Your task to perform on an android device: toggle notification dots Image 0: 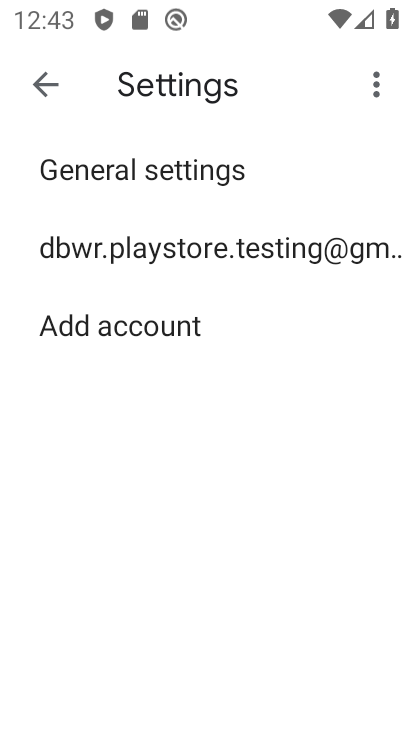
Step 0: press home button
Your task to perform on an android device: toggle notification dots Image 1: 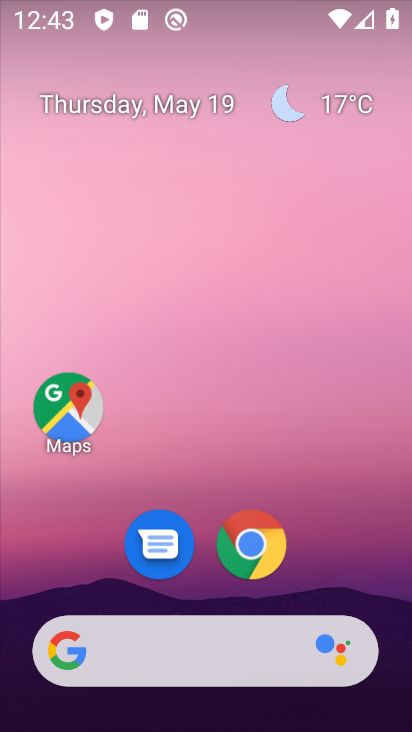
Step 1: drag from (253, 719) to (259, 139)
Your task to perform on an android device: toggle notification dots Image 2: 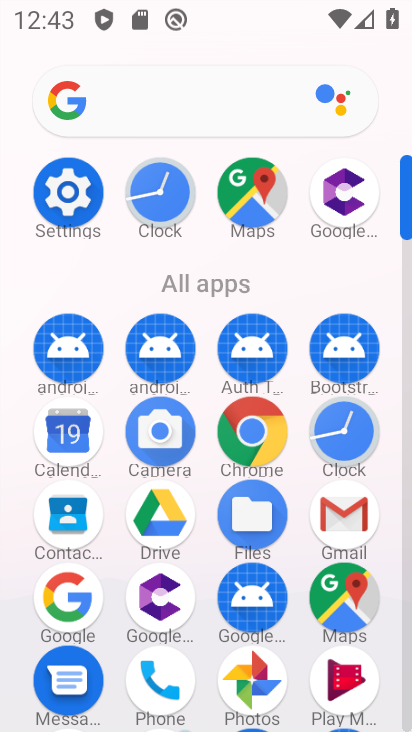
Step 2: click (73, 192)
Your task to perform on an android device: toggle notification dots Image 3: 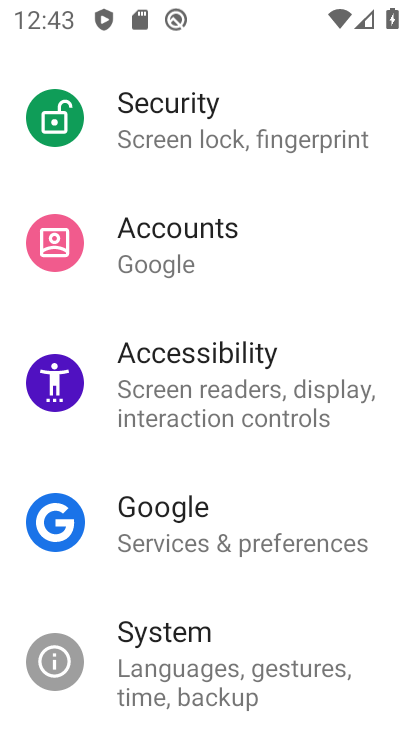
Step 3: drag from (258, 121) to (257, 461)
Your task to perform on an android device: toggle notification dots Image 4: 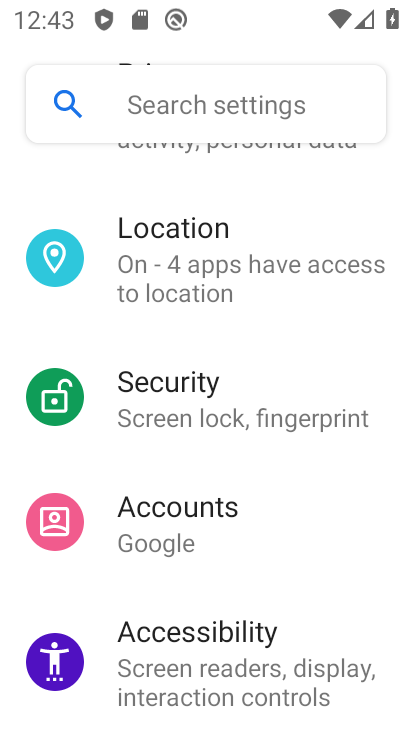
Step 4: drag from (247, 180) to (242, 498)
Your task to perform on an android device: toggle notification dots Image 5: 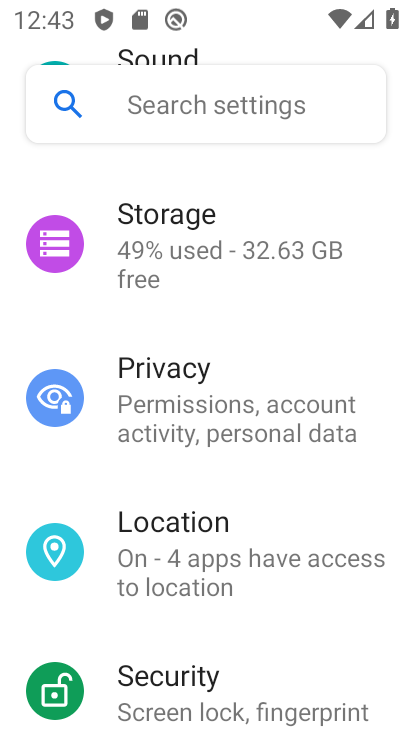
Step 5: drag from (257, 212) to (245, 556)
Your task to perform on an android device: toggle notification dots Image 6: 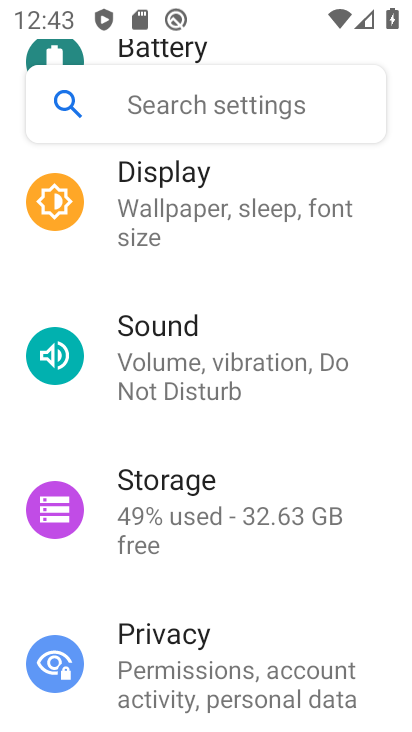
Step 6: drag from (258, 261) to (267, 572)
Your task to perform on an android device: toggle notification dots Image 7: 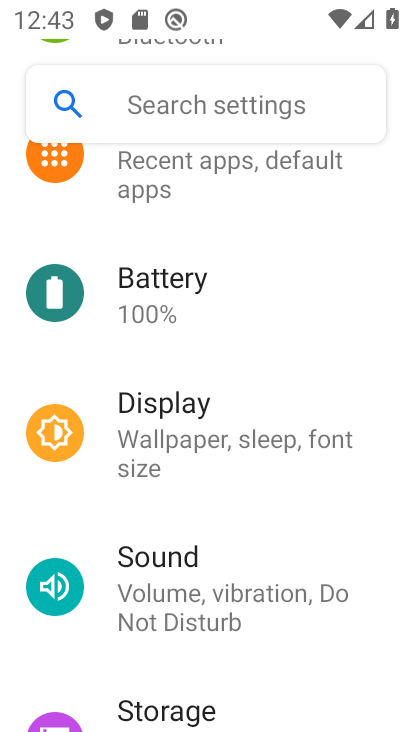
Step 7: drag from (255, 211) to (249, 491)
Your task to perform on an android device: toggle notification dots Image 8: 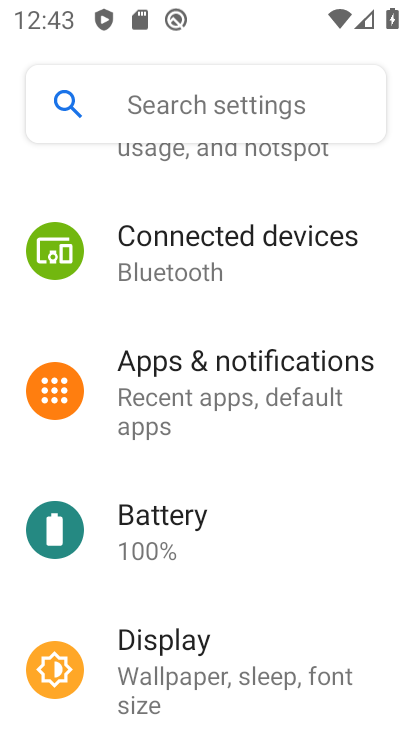
Step 8: click (257, 363)
Your task to perform on an android device: toggle notification dots Image 9: 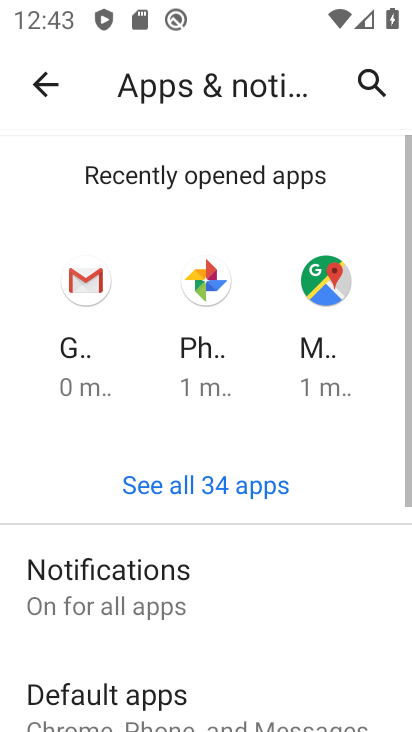
Step 9: drag from (219, 649) to (220, 449)
Your task to perform on an android device: toggle notification dots Image 10: 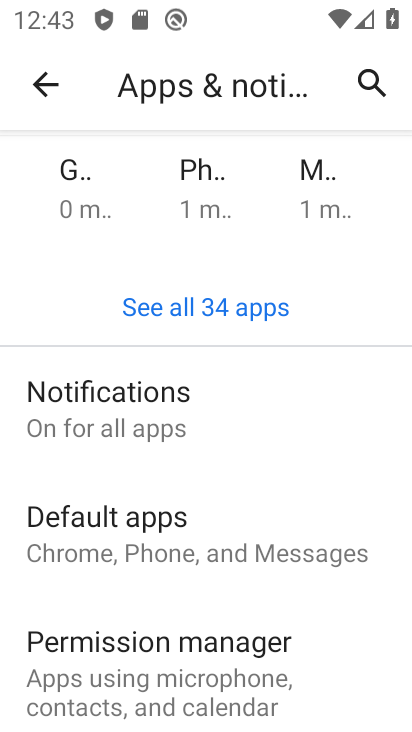
Step 10: click (118, 415)
Your task to perform on an android device: toggle notification dots Image 11: 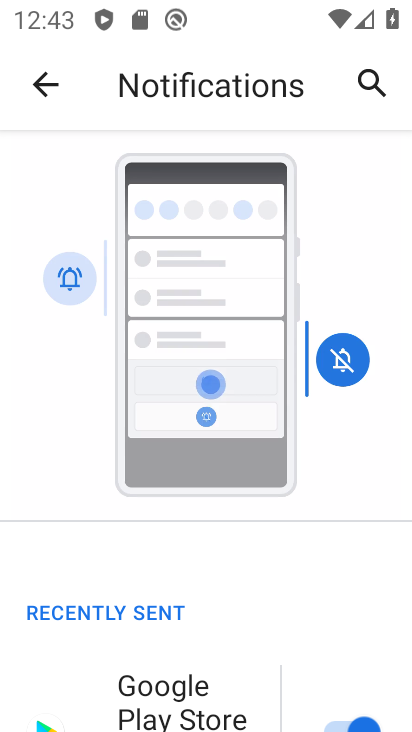
Step 11: drag from (245, 698) to (263, 476)
Your task to perform on an android device: toggle notification dots Image 12: 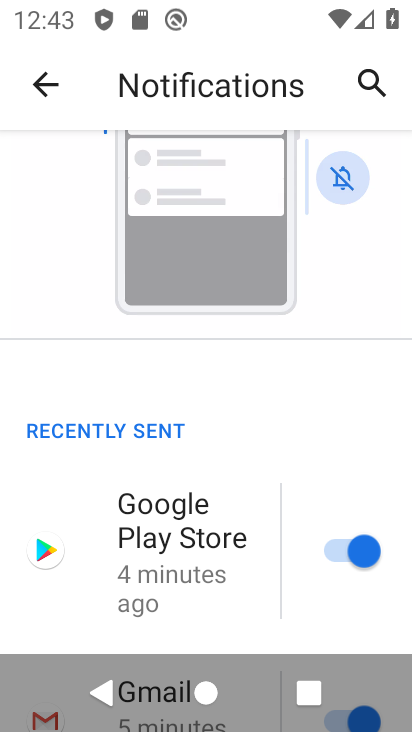
Step 12: drag from (220, 356) to (230, 240)
Your task to perform on an android device: toggle notification dots Image 13: 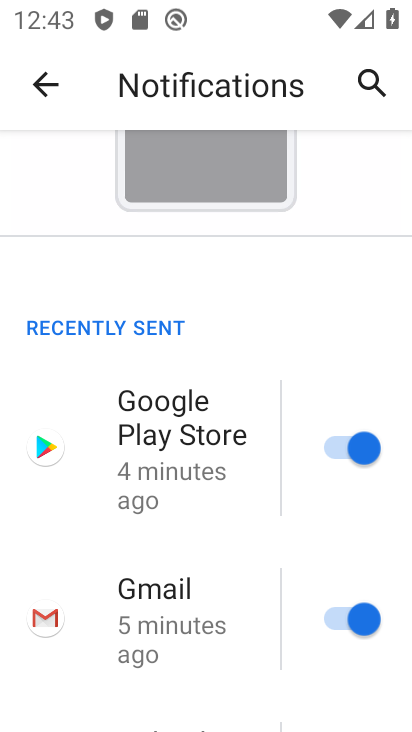
Step 13: drag from (218, 670) to (239, 359)
Your task to perform on an android device: toggle notification dots Image 14: 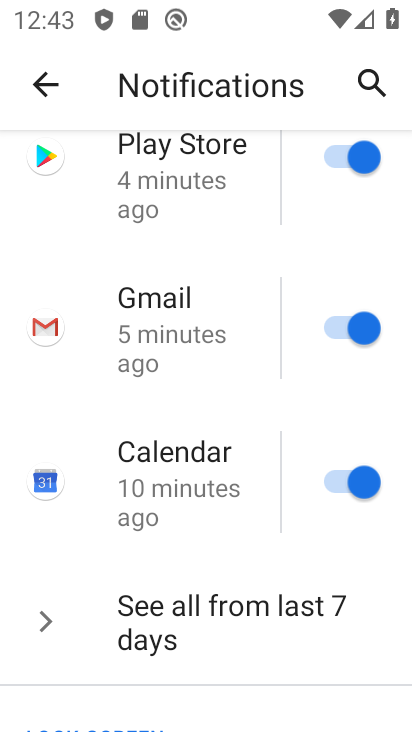
Step 14: drag from (231, 642) to (244, 267)
Your task to perform on an android device: toggle notification dots Image 15: 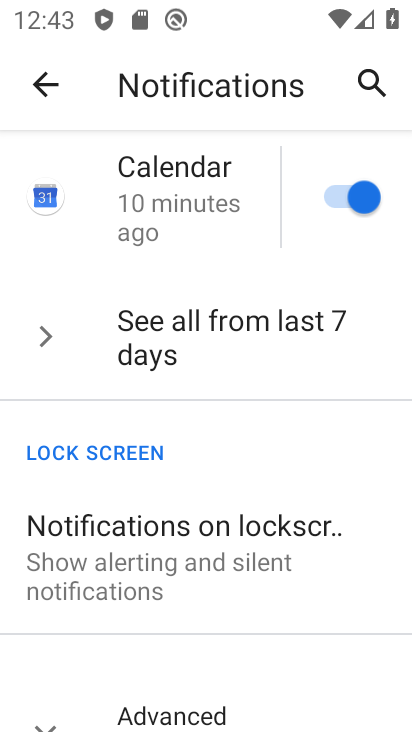
Step 15: drag from (254, 662) to (259, 387)
Your task to perform on an android device: toggle notification dots Image 16: 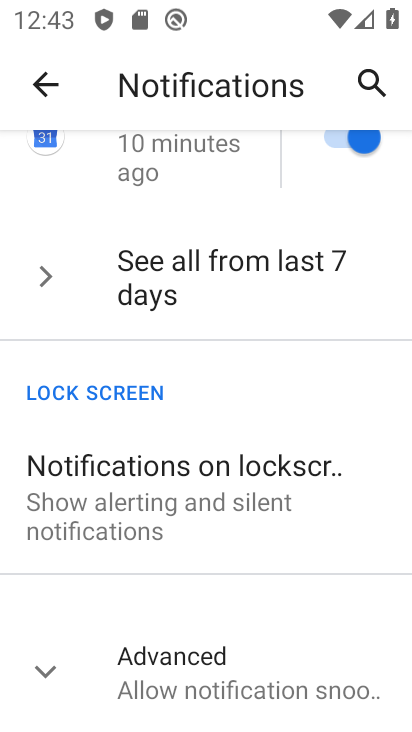
Step 16: click (225, 667)
Your task to perform on an android device: toggle notification dots Image 17: 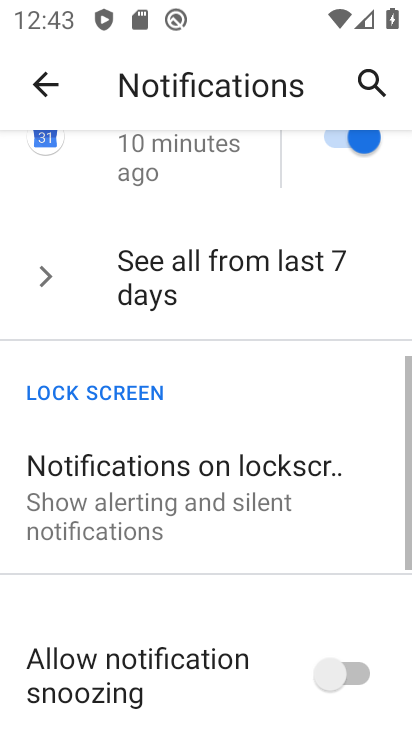
Step 17: drag from (247, 693) to (270, 384)
Your task to perform on an android device: toggle notification dots Image 18: 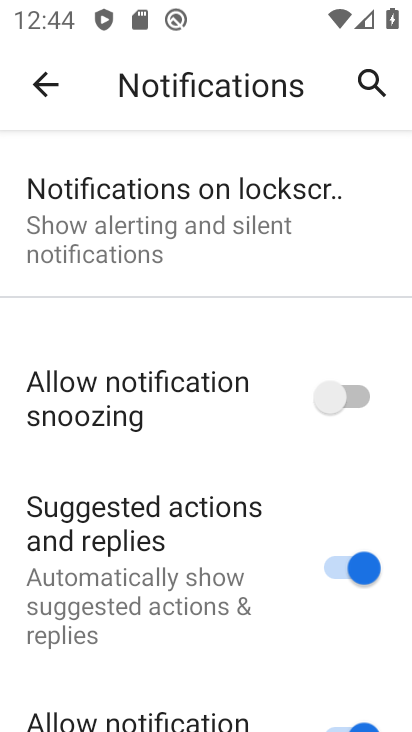
Step 18: drag from (255, 685) to (254, 441)
Your task to perform on an android device: toggle notification dots Image 19: 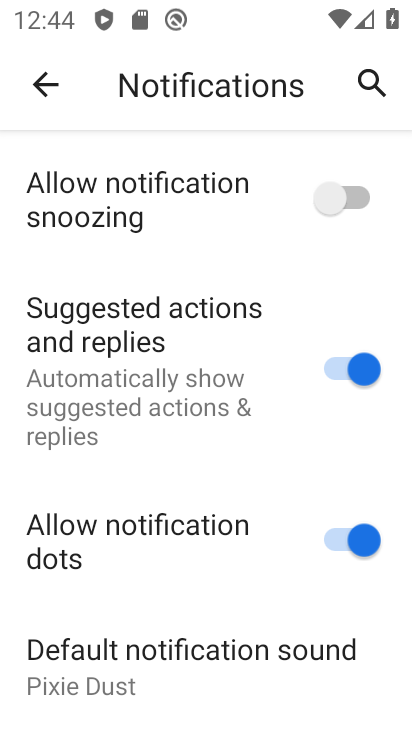
Step 19: click (352, 544)
Your task to perform on an android device: toggle notification dots Image 20: 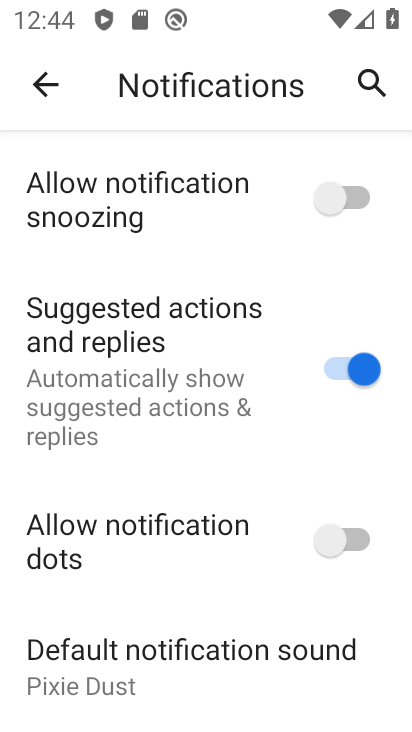
Step 20: click (349, 539)
Your task to perform on an android device: toggle notification dots Image 21: 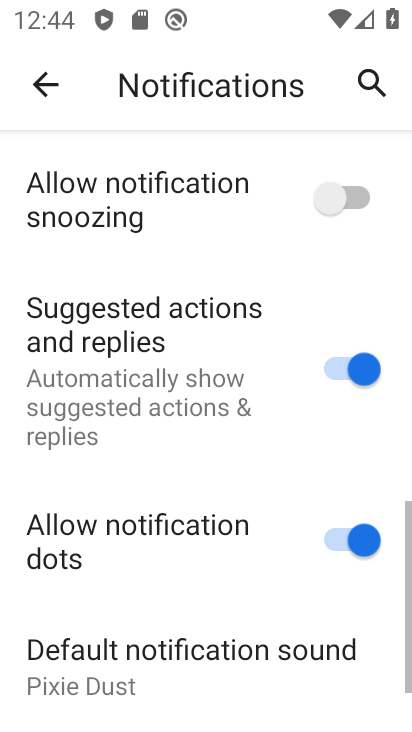
Step 21: task complete